Your task to perform on an android device: toggle location history Image 0: 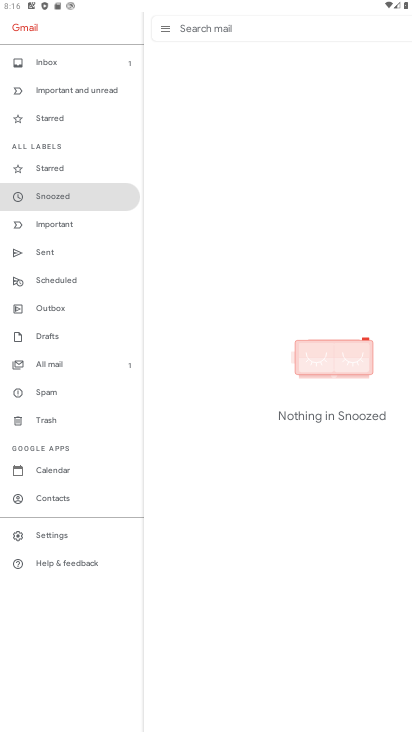
Step 0: press home button
Your task to perform on an android device: toggle location history Image 1: 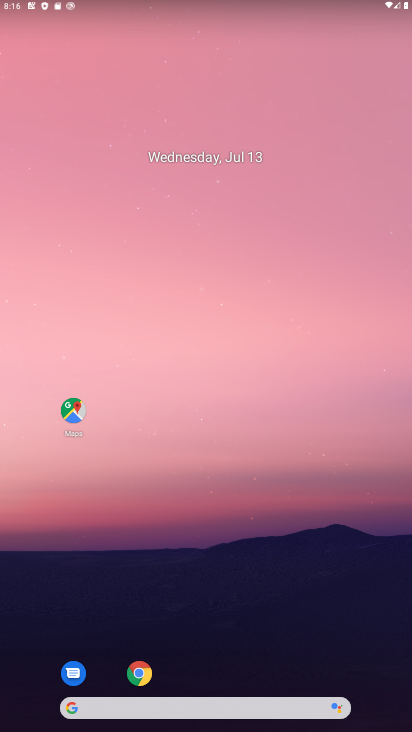
Step 1: drag from (216, 673) to (239, 147)
Your task to perform on an android device: toggle location history Image 2: 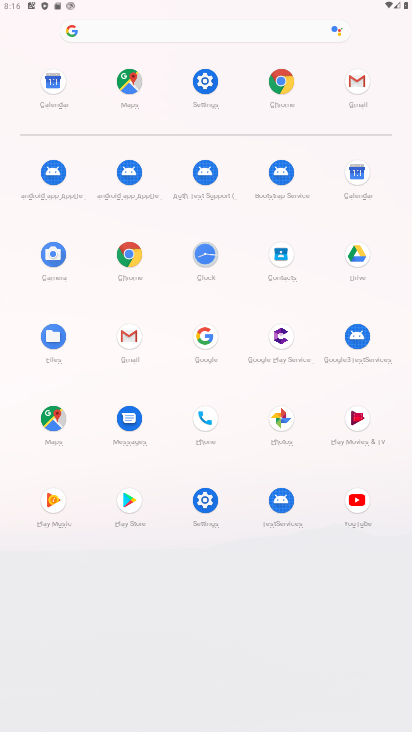
Step 2: click (204, 79)
Your task to perform on an android device: toggle location history Image 3: 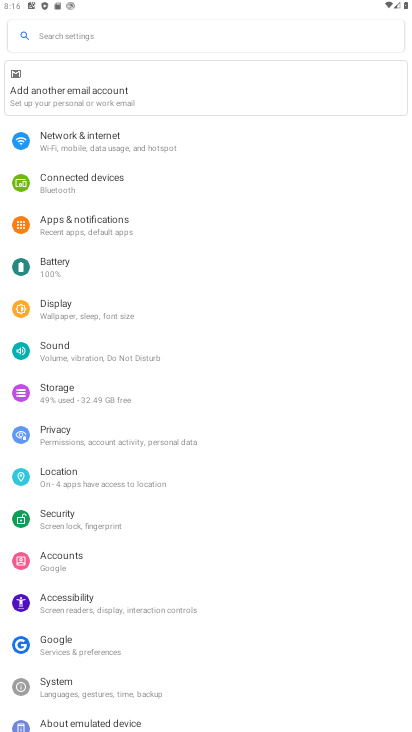
Step 3: click (65, 476)
Your task to perform on an android device: toggle location history Image 4: 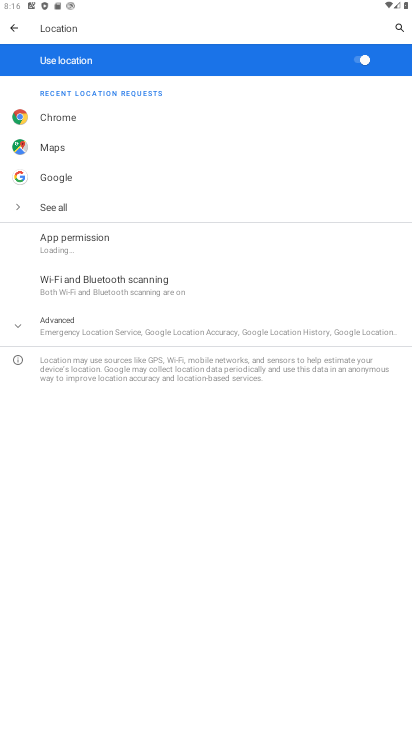
Step 4: click (92, 335)
Your task to perform on an android device: toggle location history Image 5: 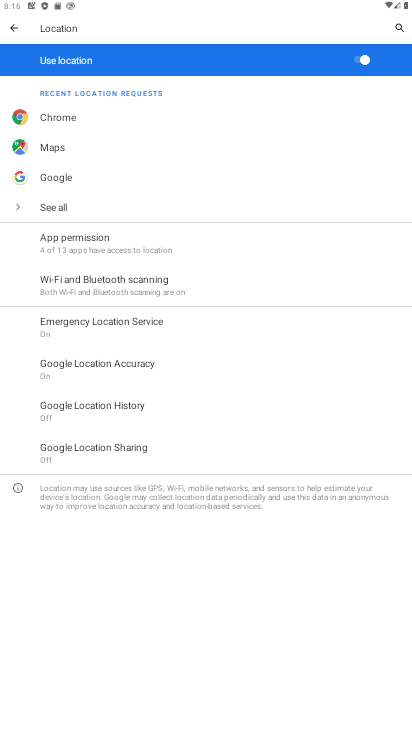
Step 5: click (120, 405)
Your task to perform on an android device: toggle location history Image 6: 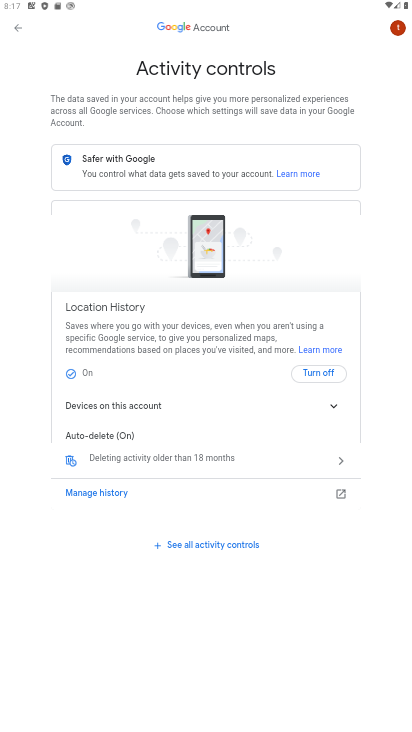
Step 6: click (314, 370)
Your task to perform on an android device: toggle location history Image 7: 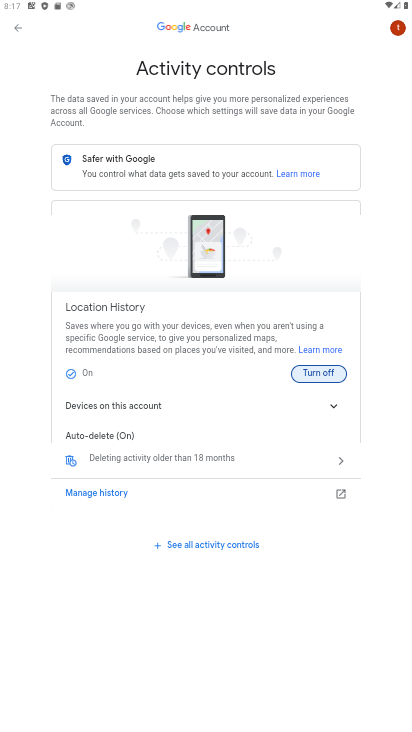
Step 7: click (315, 370)
Your task to perform on an android device: toggle location history Image 8: 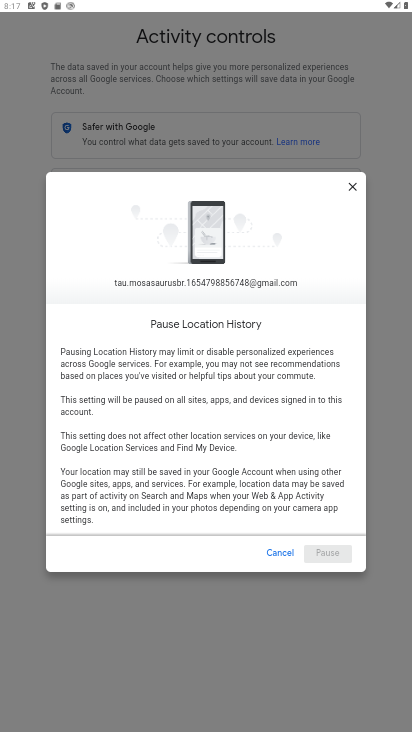
Step 8: drag from (298, 473) to (292, 247)
Your task to perform on an android device: toggle location history Image 9: 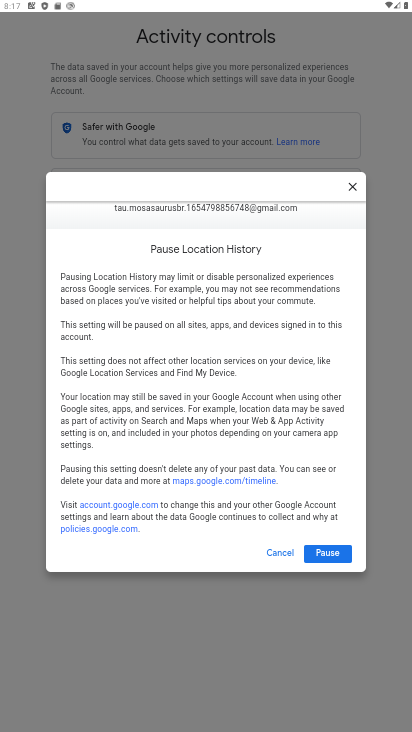
Step 9: click (343, 555)
Your task to perform on an android device: toggle location history Image 10: 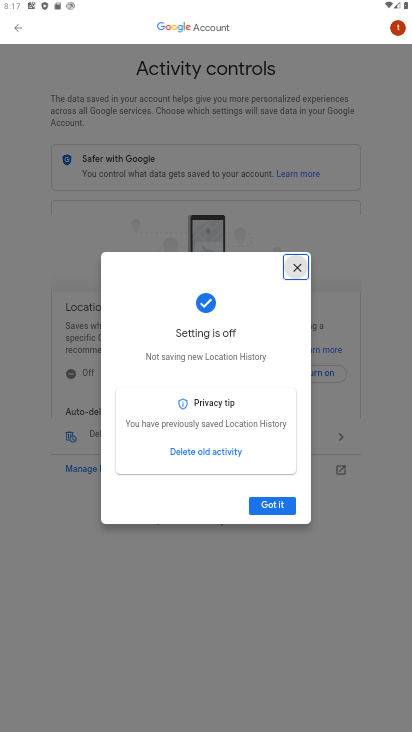
Step 10: task complete